Your task to perform on an android device: delete a single message in the gmail app Image 0: 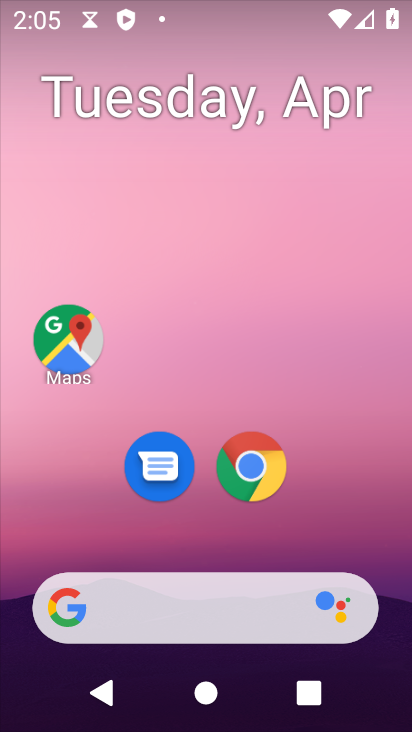
Step 0: drag from (336, 499) to (288, 45)
Your task to perform on an android device: delete a single message in the gmail app Image 1: 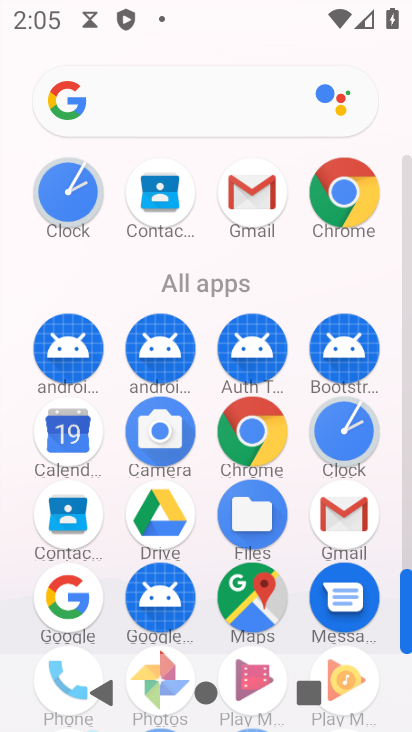
Step 1: drag from (10, 527) to (19, 210)
Your task to perform on an android device: delete a single message in the gmail app Image 2: 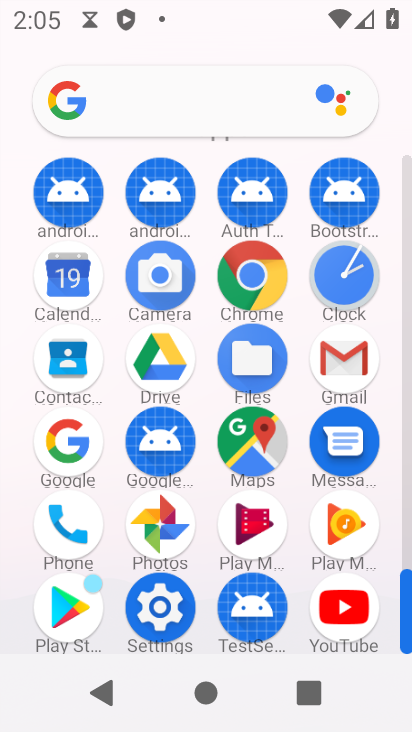
Step 2: click (340, 351)
Your task to perform on an android device: delete a single message in the gmail app Image 3: 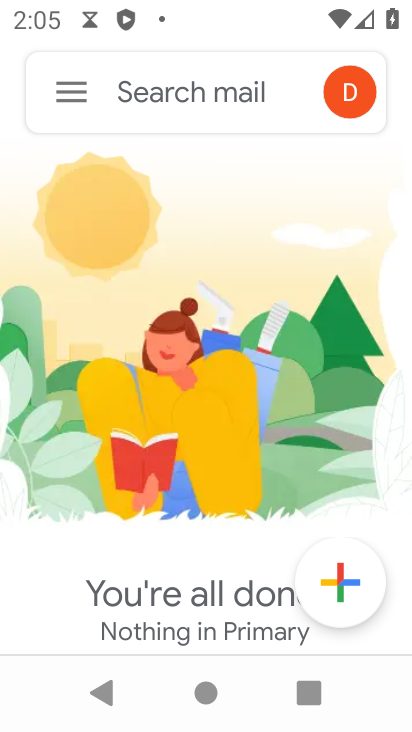
Step 3: click (72, 99)
Your task to perform on an android device: delete a single message in the gmail app Image 4: 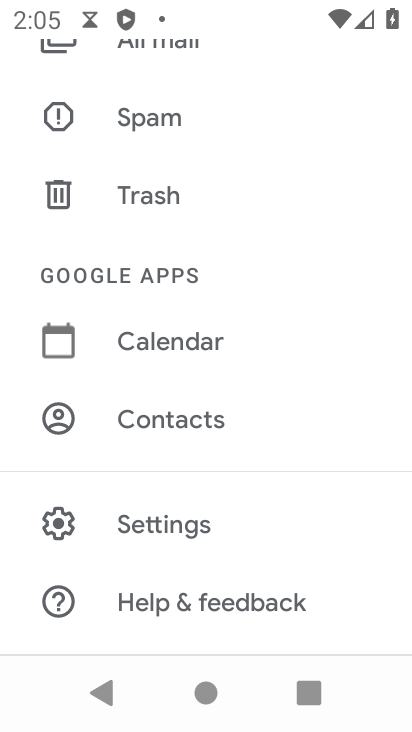
Step 4: drag from (227, 502) to (239, 154)
Your task to perform on an android device: delete a single message in the gmail app Image 5: 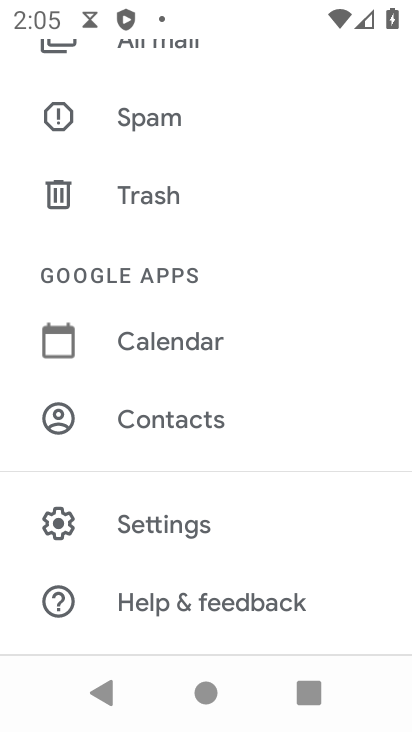
Step 5: drag from (209, 183) to (214, 309)
Your task to perform on an android device: delete a single message in the gmail app Image 6: 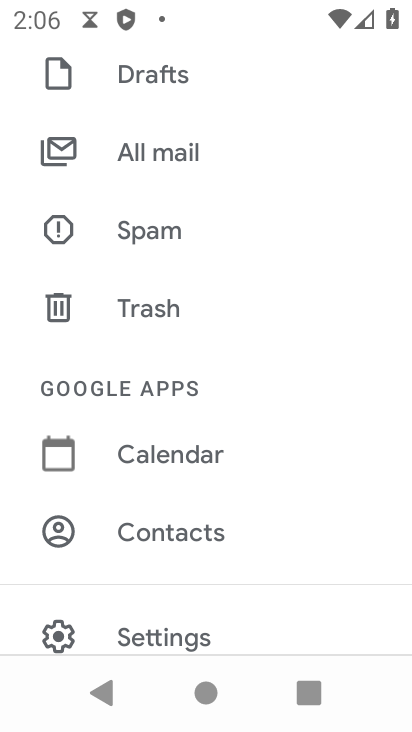
Step 6: click (180, 153)
Your task to perform on an android device: delete a single message in the gmail app Image 7: 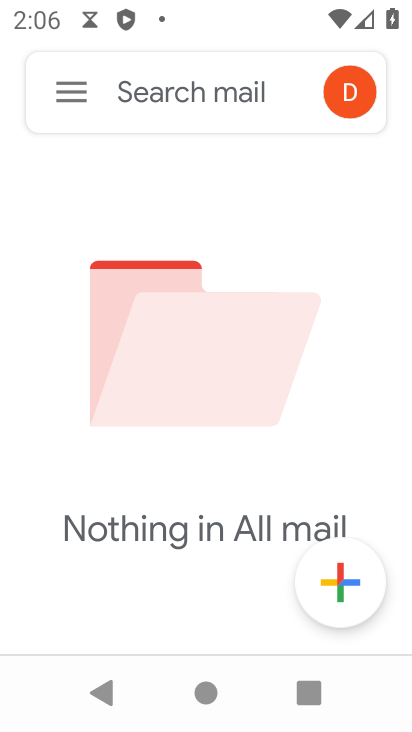
Step 7: click (92, 85)
Your task to perform on an android device: delete a single message in the gmail app Image 8: 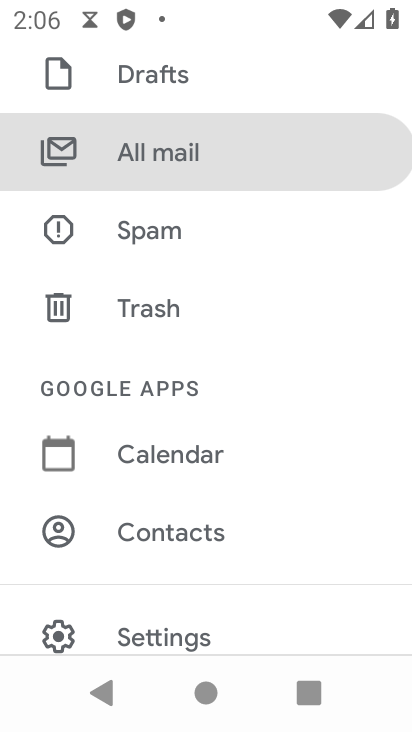
Step 8: drag from (195, 222) to (214, 565)
Your task to perform on an android device: delete a single message in the gmail app Image 9: 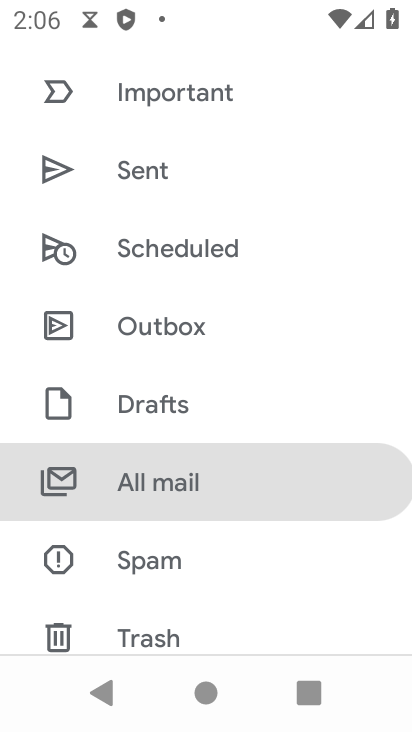
Step 9: drag from (277, 225) to (263, 470)
Your task to perform on an android device: delete a single message in the gmail app Image 10: 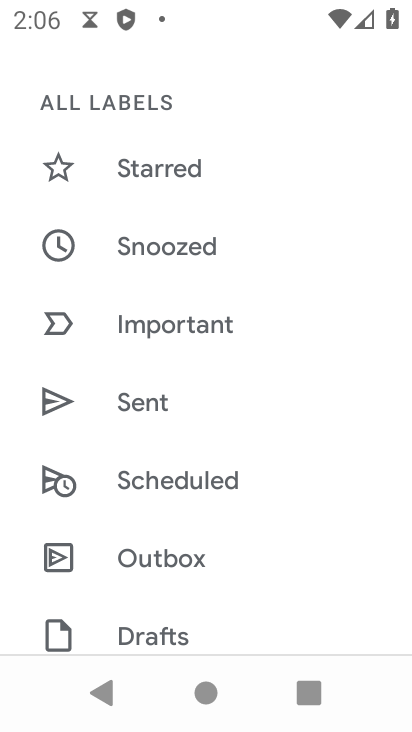
Step 10: drag from (292, 232) to (280, 463)
Your task to perform on an android device: delete a single message in the gmail app Image 11: 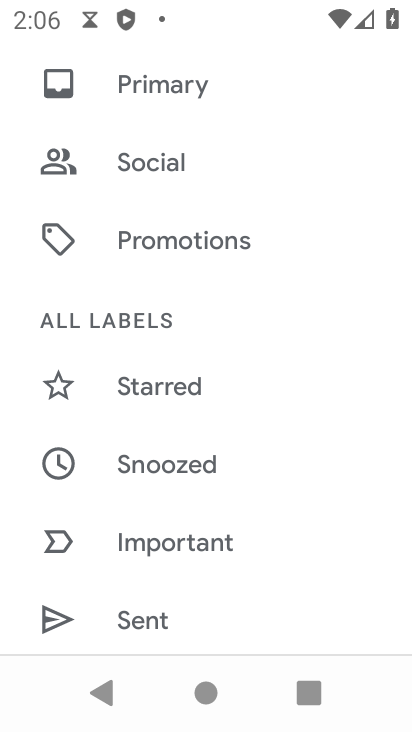
Step 11: drag from (250, 203) to (254, 481)
Your task to perform on an android device: delete a single message in the gmail app Image 12: 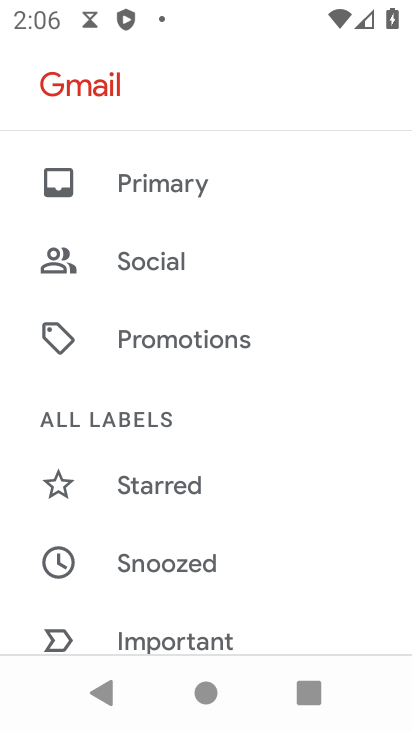
Step 12: click (211, 193)
Your task to perform on an android device: delete a single message in the gmail app Image 13: 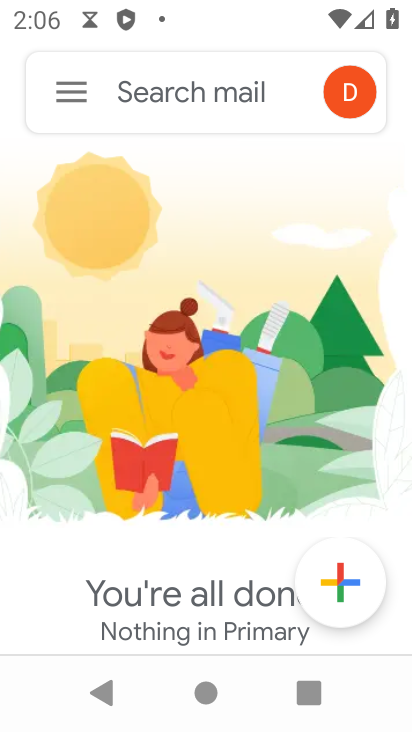
Step 13: task complete